Your task to perform on an android device: Open Google Maps Image 0: 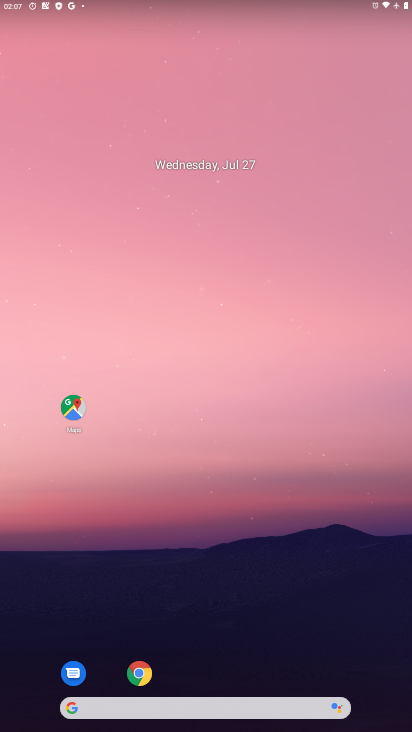
Step 0: click (77, 404)
Your task to perform on an android device: Open Google Maps Image 1: 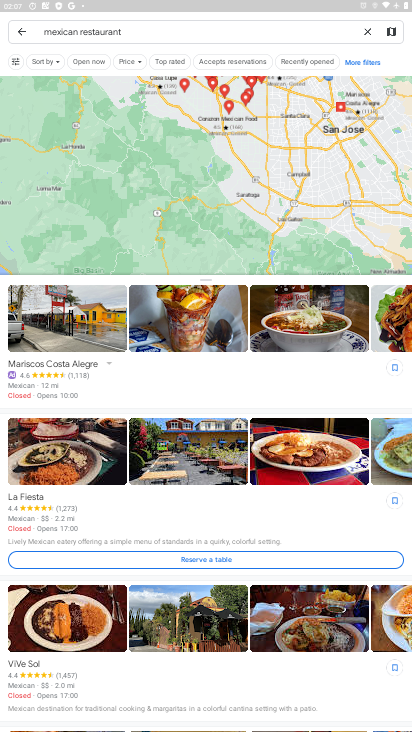
Step 1: task complete